Your task to perform on an android device: change the clock display to analog Image 0: 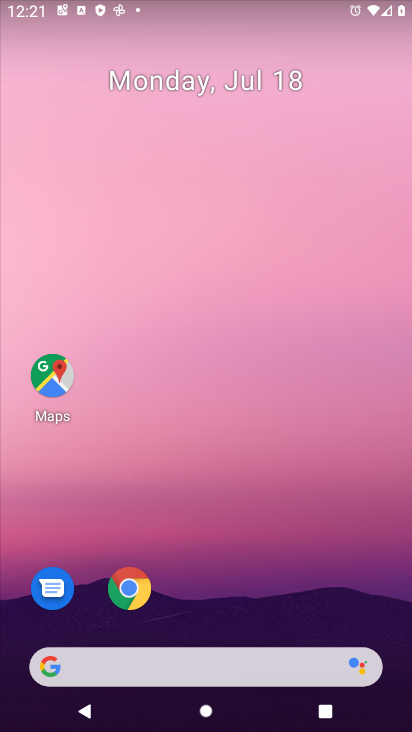
Step 0: drag from (249, 568) to (262, 121)
Your task to perform on an android device: change the clock display to analog Image 1: 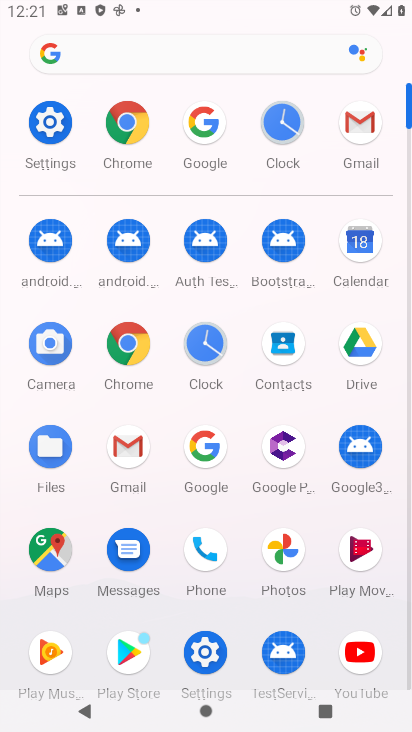
Step 1: click (208, 368)
Your task to perform on an android device: change the clock display to analog Image 2: 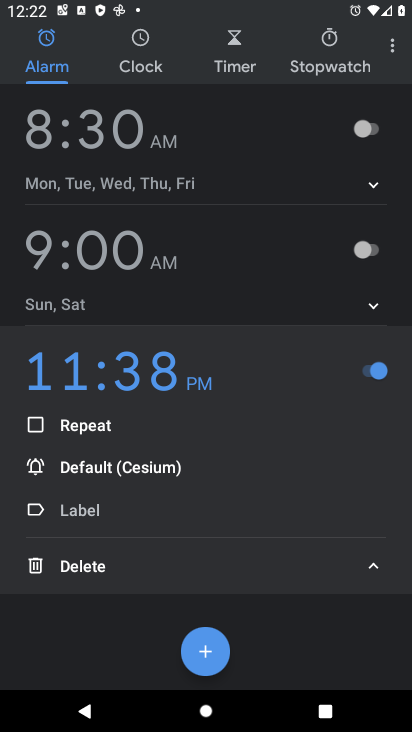
Step 2: click (388, 57)
Your task to perform on an android device: change the clock display to analog Image 3: 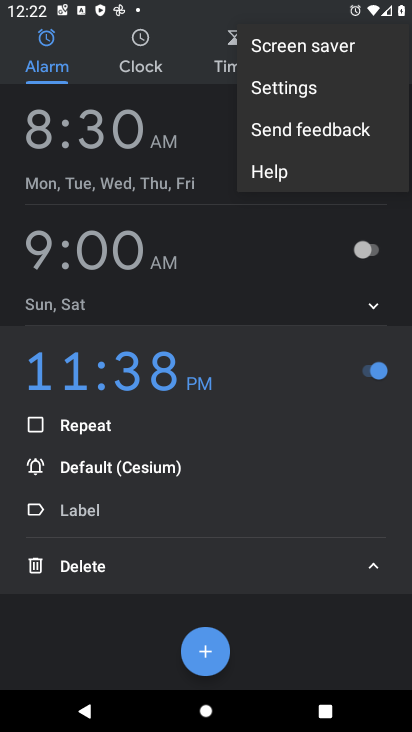
Step 3: click (304, 100)
Your task to perform on an android device: change the clock display to analog Image 4: 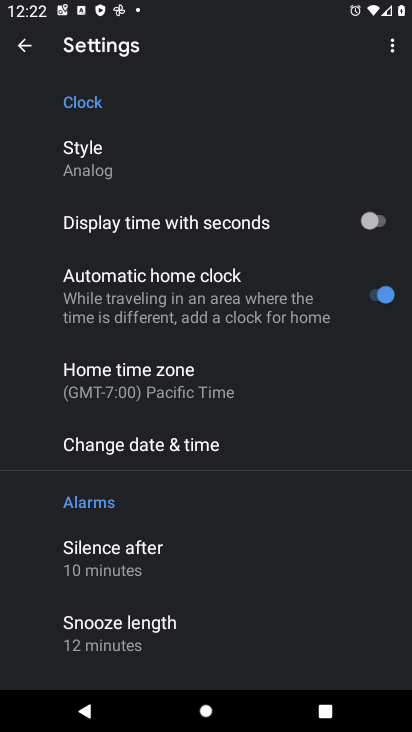
Step 4: click (126, 164)
Your task to perform on an android device: change the clock display to analog Image 5: 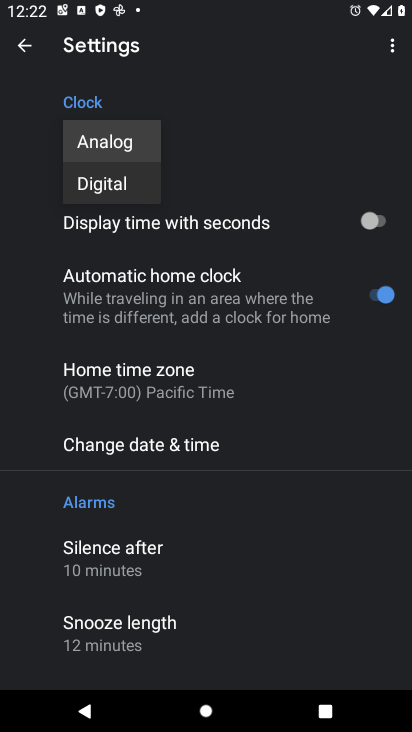
Step 5: task complete